Your task to perform on an android device: set the stopwatch Image 0: 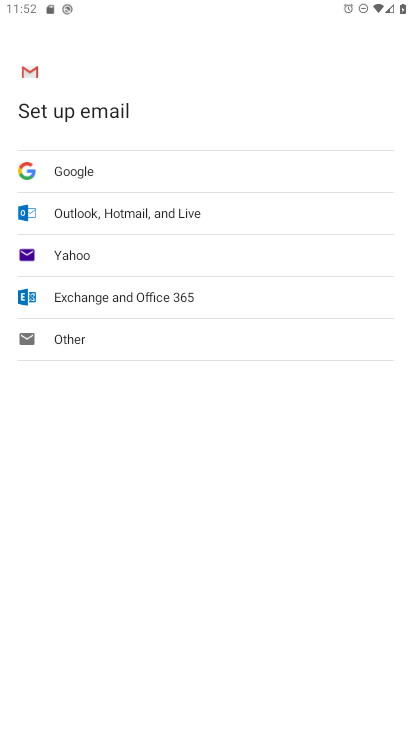
Step 0: press home button
Your task to perform on an android device: set the stopwatch Image 1: 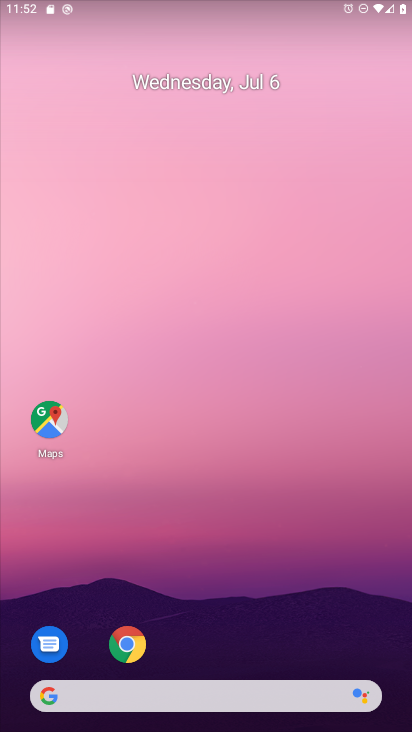
Step 1: drag from (239, 638) to (281, 124)
Your task to perform on an android device: set the stopwatch Image 2: 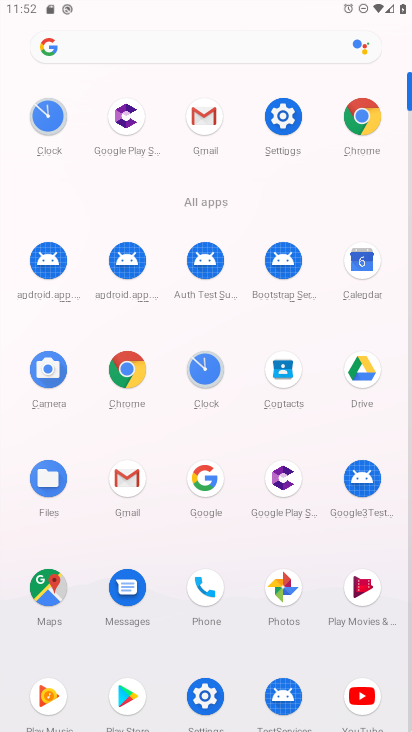
Step 2: click (204, 372)
Your task to perform on an android device: set the stopwatch Image 3: 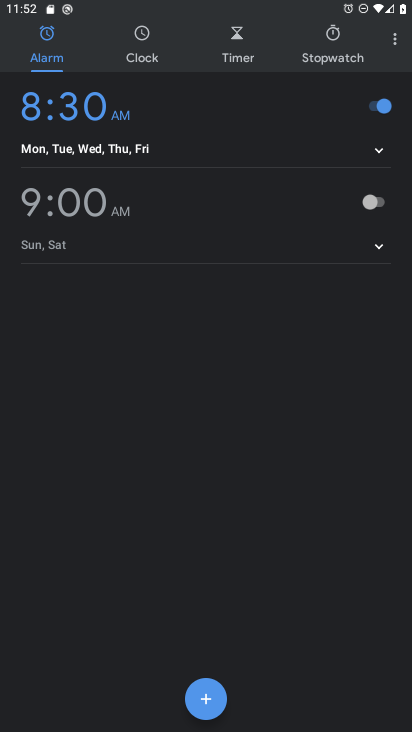
Step 3: click (337, 49)
Your task to perform on an android device: set the stopwatch Image 4: 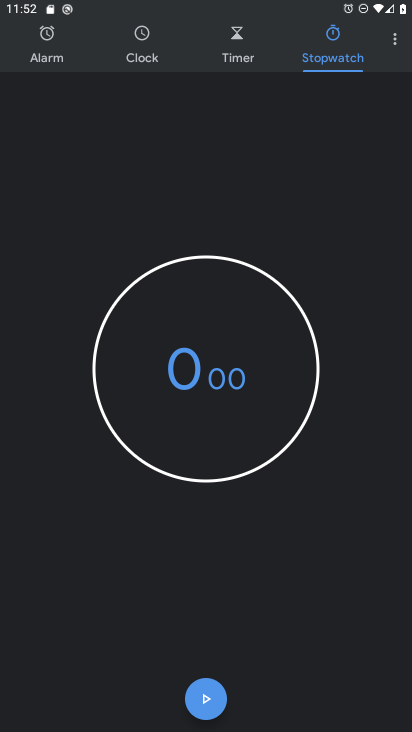
Step 4: click (205, 693)
Your task to perform on an android device: set the stopwatch Image 5: 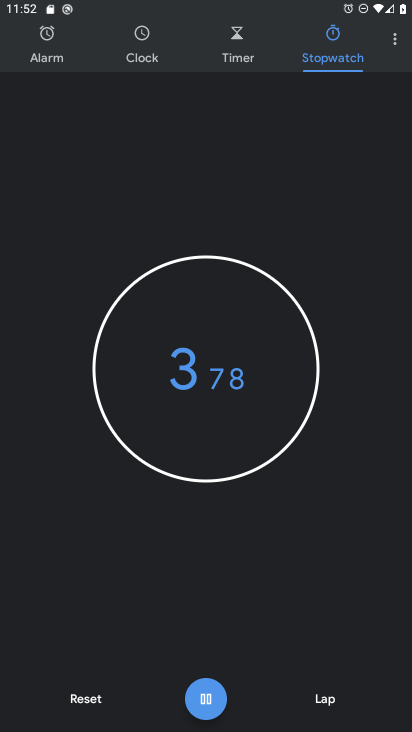
Step 5: click (200, 700)
Your task to perform on an android device: set the stopwatch Image 6: 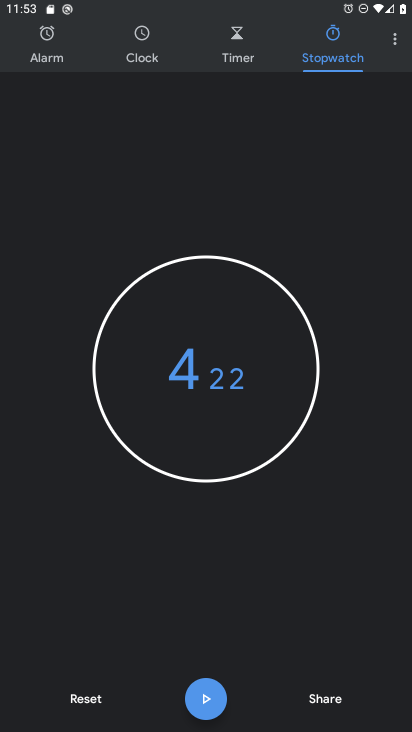
Step 6: task complete